Your task to perform on an android device: Go to accessibility settings Image 0: 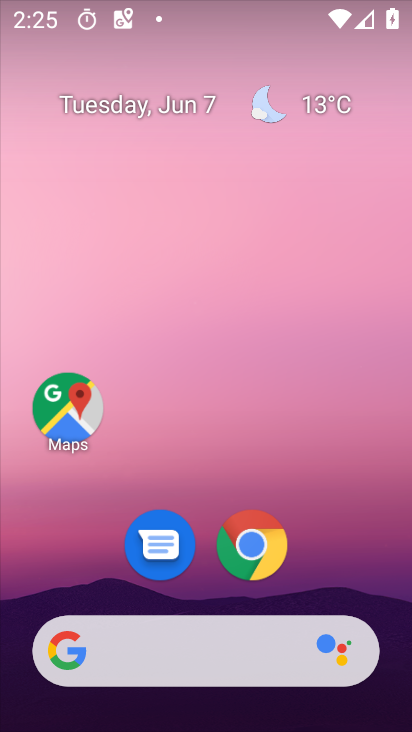
Step 0: drag from (341, 398) to (166, 11)
Your task to perform on an android device: Go to accessibility settings Image 1: 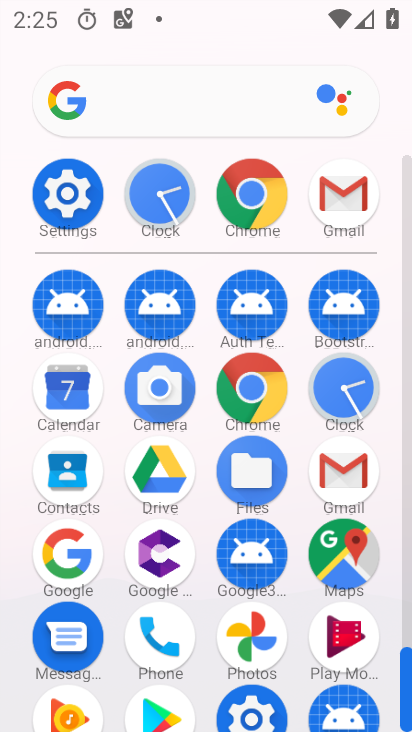
Step 1: click (58, 214)
Your task to perform on an android device: Go to accessibility settings Image 2: 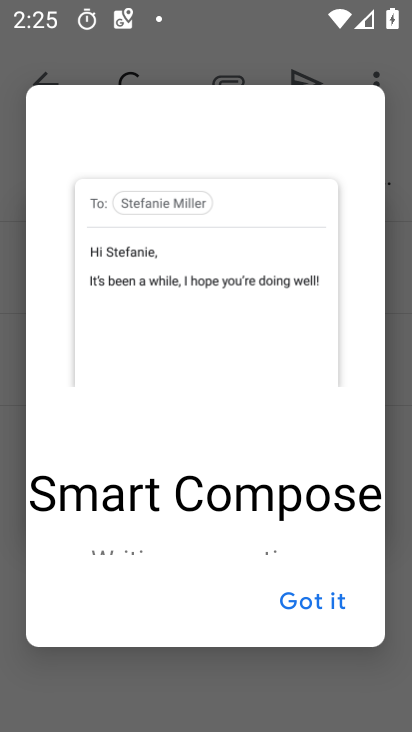
Step 2: press home button
Your task to perform on an android device: Go to accessibility settings Image 3: 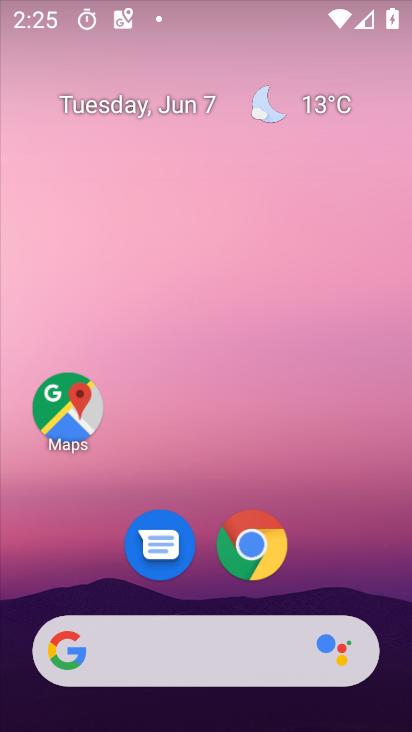
Step 3: drag from (337, 555) to (170, 46)
Your task to perform on an android device: Go to accessibility settings Image 4: 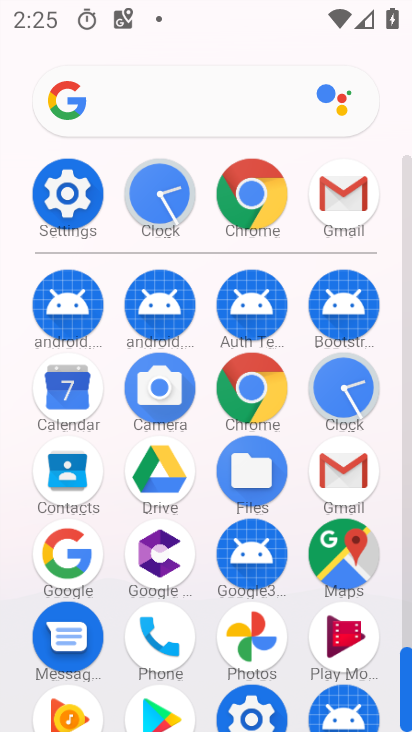
Step 4: click (54, 242)
Your task to perform on an android device: Go to accessibility settings Image 5: 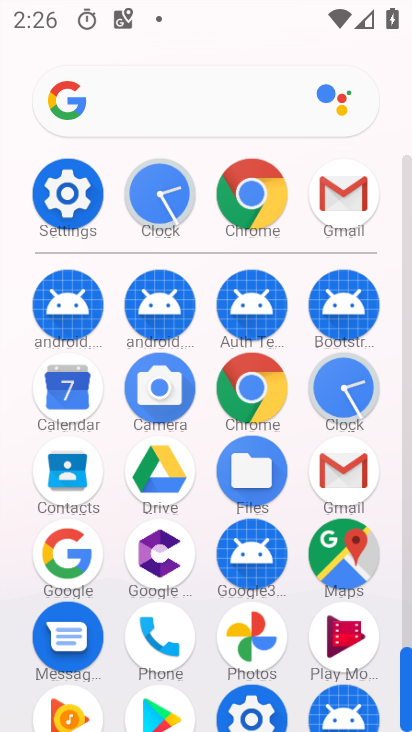
Step 5: click (76, 165)
Your task to perform on an android device: Go to accessibility settings Image 6: 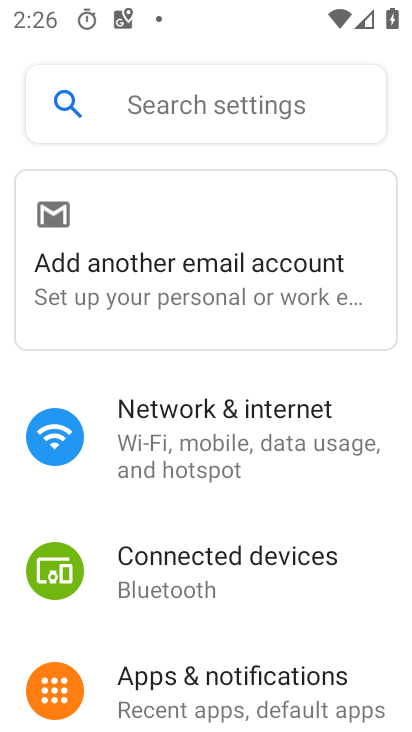
Step 6: drag from (258, 634) to (139, 16)
Your task to perform on an android device: Go to accessibility settings Image 7: 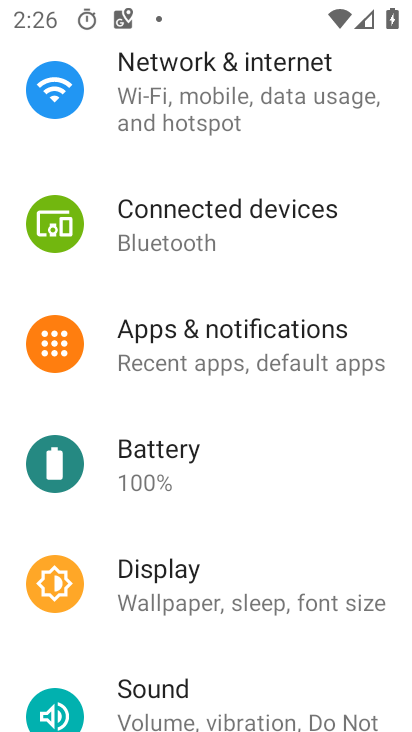
Step 7: drag from (251, 655) to (205, 12)
Your task to perform on an android device: Go to accessibility settings Image 8: 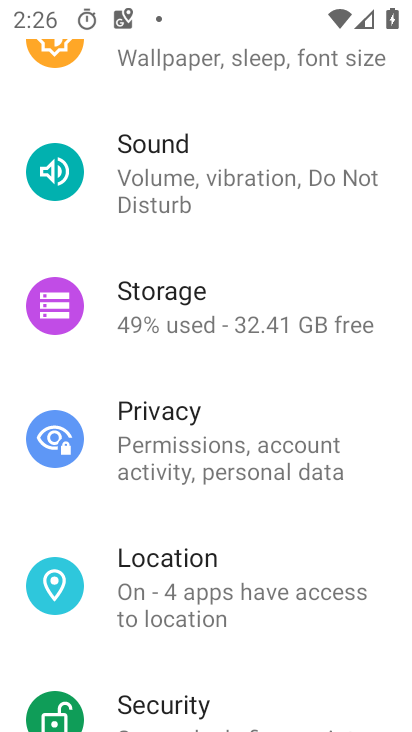
Step 8: drag from (246, 667) to (219, 61)
Your task to perform on an android device: Go to accessibility settings Image 9: 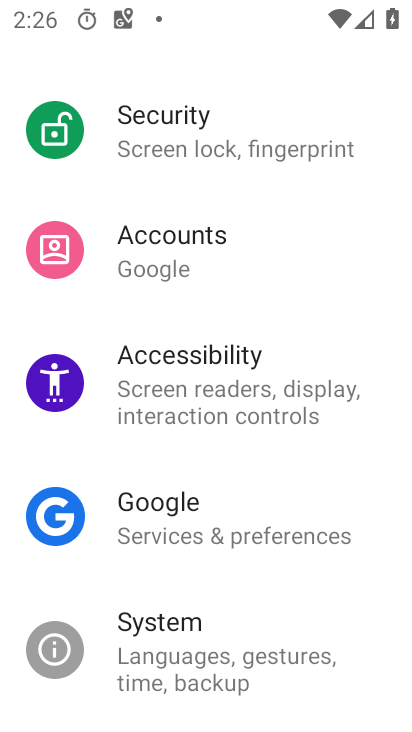
Step 9: click (268, 362)
Your task to perform on an android device: Go to accessibility settings Image 10: 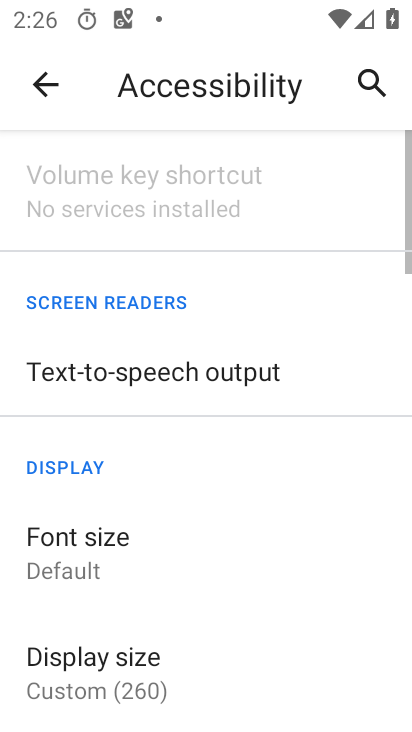
Step 10: task complete